Your task to perform on an android device: What's US dollar exchange rate against the British Pound? Image 0: 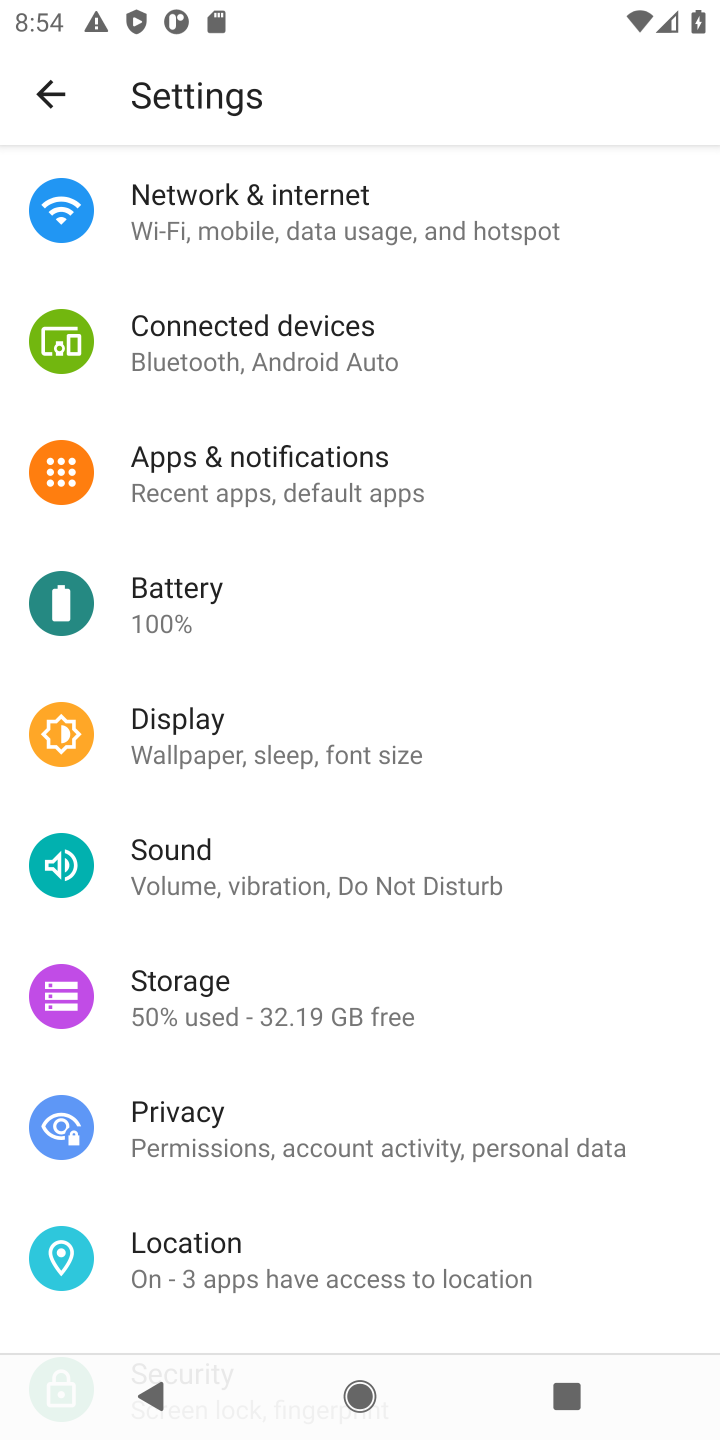
Step 0: press home button
Your task to perform on an android device: What's US dollar exchange rate against the British Pound? Image 1: 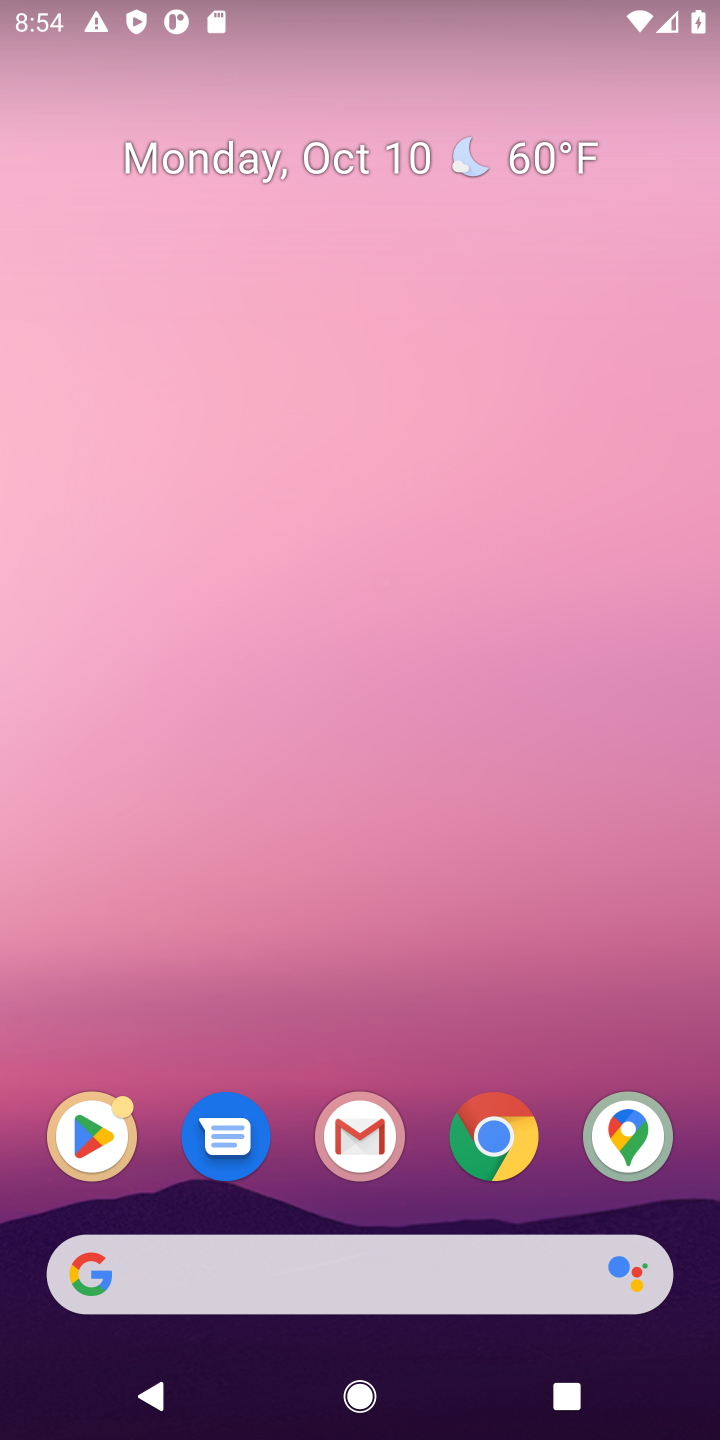
Step 1: click (302, 1265)
Your task to perform on an android device: What's US dollar exchange rate against the British Pound? Image 2: 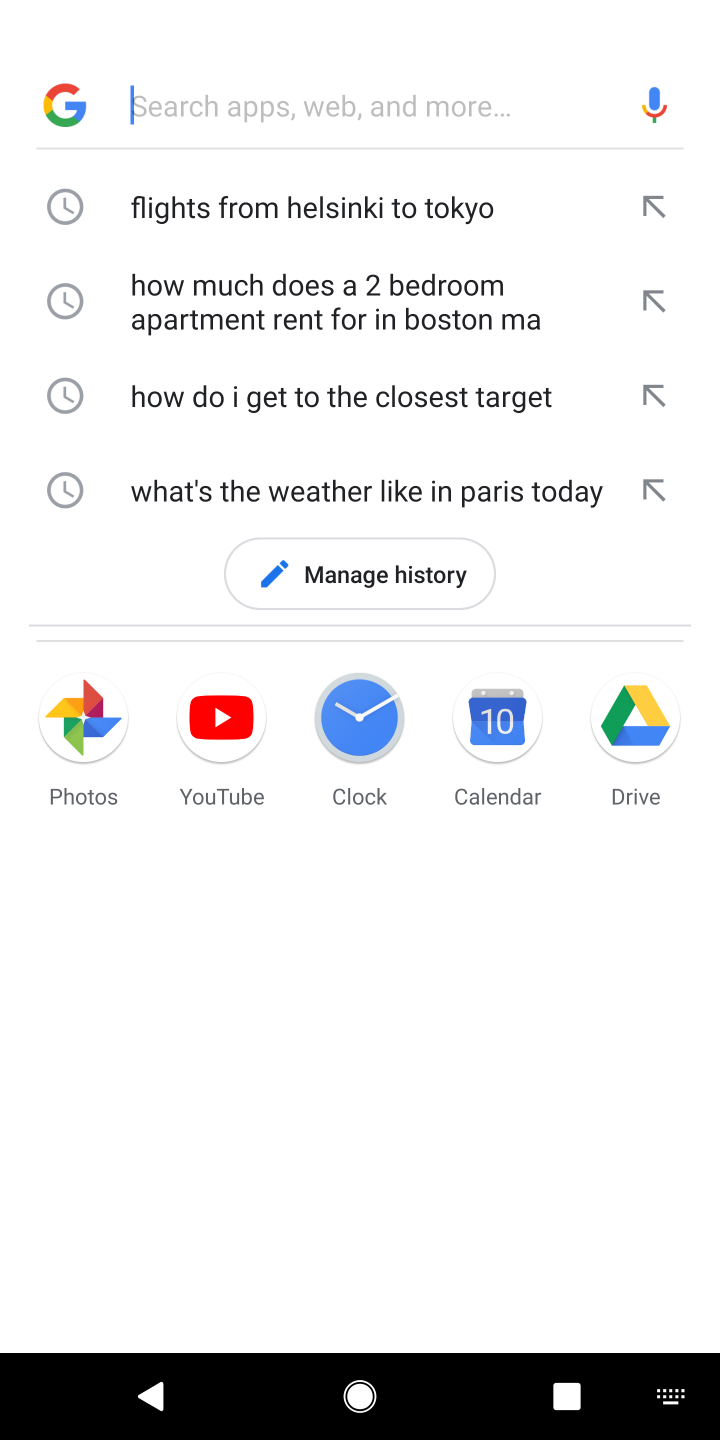
Step 2: type "What's US dollar exchange rate against the British Pound?"
Your task to perform on an android device: What's US dollar exchange rate against the British Pound? Image 3: 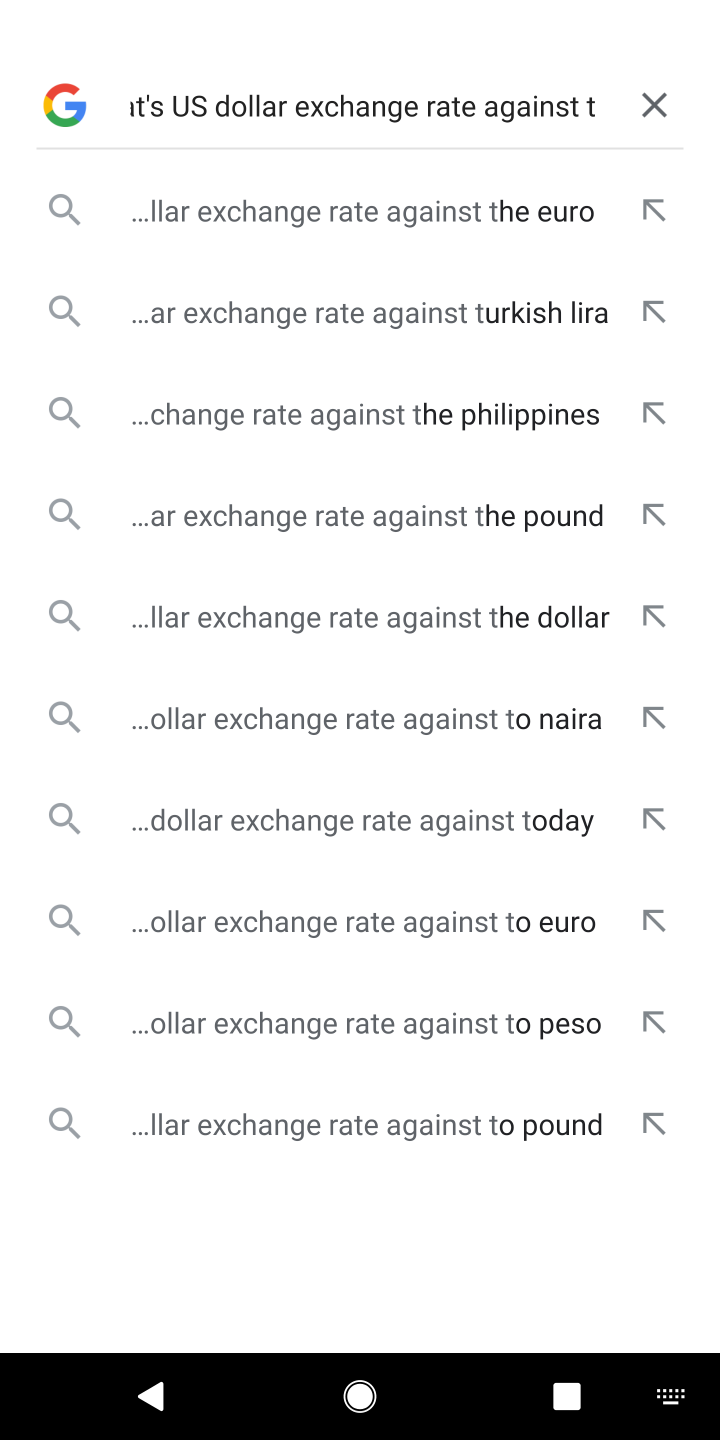
Step 3: type "he british pound"
Your task to perform on an android device: What's US dollar exchange rate against the British Pound? Image 4: 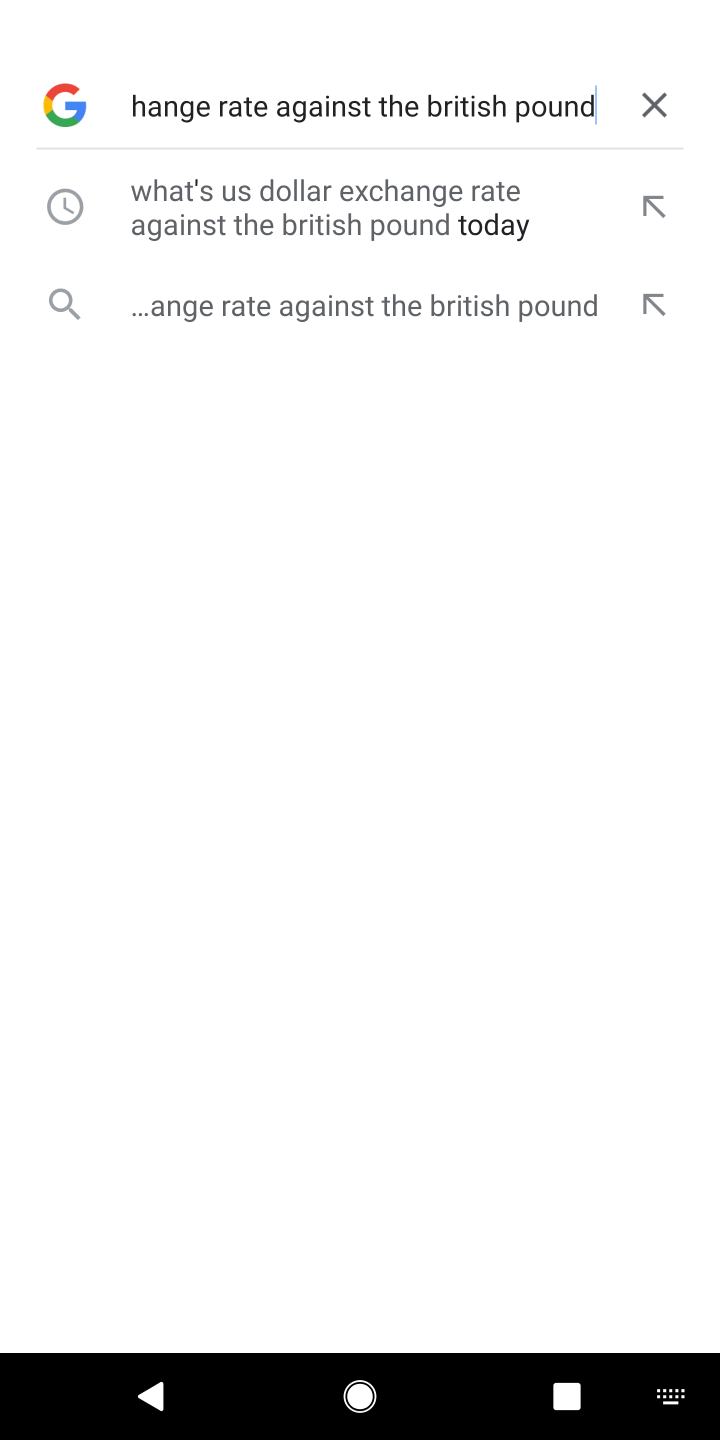
Step 4: click (310, 205)
Your task to perform on an android device: What's US dollar exchange rate against the British Pound? Image 5: 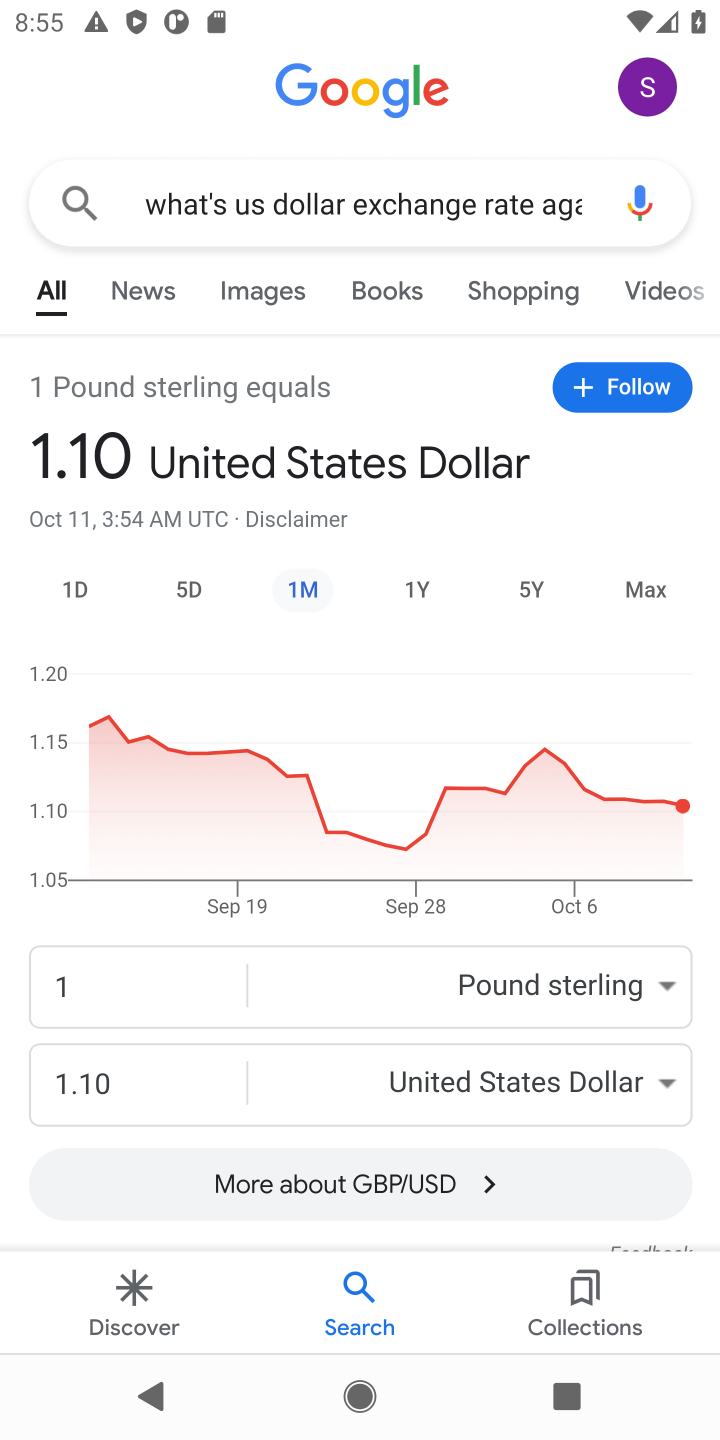
Step 5: task complete